Your task to perform on an android device: Open internet settings Image 0: 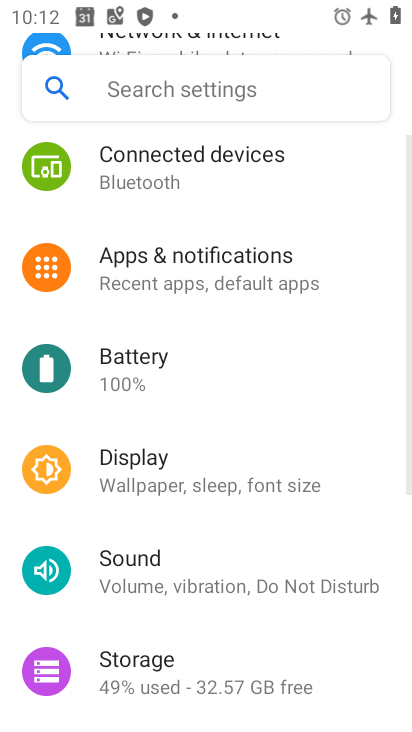
Step 0: press home button
Your task to perform on an android device: Open internet settings Image 1: 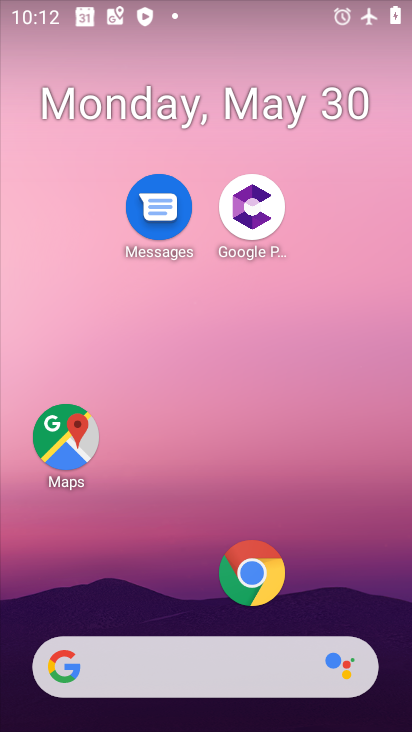
Step 1: drag from (188, 632) to (261, 108)
Your task to perform on an android device: Open internet settings Image 2: 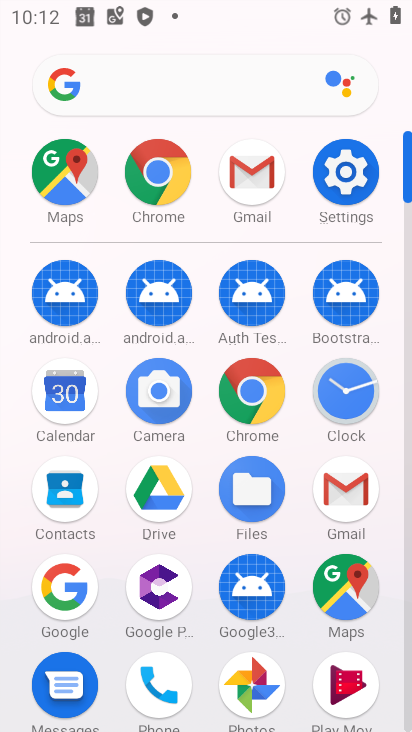
Step 2: click (349, 174)
Your task to perform on an android device: Open internet settings Image 3: 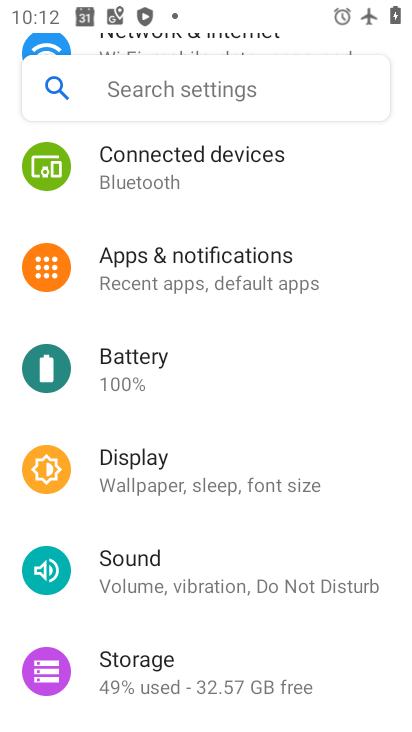
Step 3: drag from (230, 315) to (205, 616)
Your task to perform on an android device: Open internet settings Image 4: 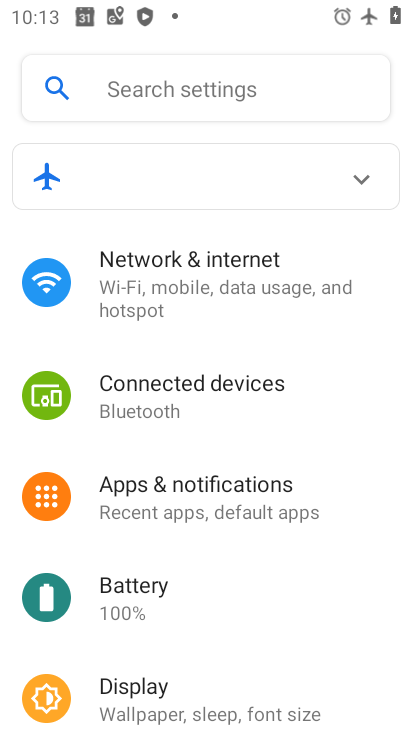
Step 4: click (186, 290)
Your task to perform on an android device: Open internet settings Image 5: 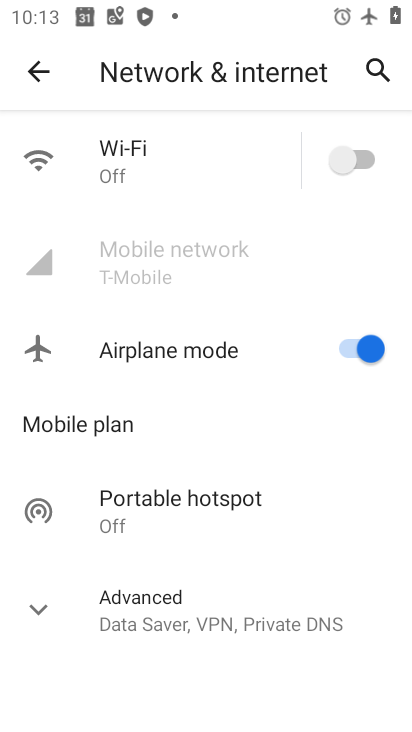
Step 5: click (170, 255)
Your task to perform on an android device: Open internet settings Image 6: 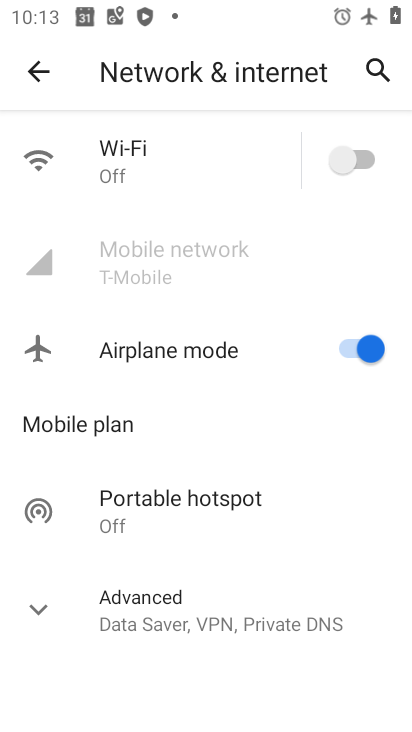
Step 6: task complete